Your task to perform on an android device: Open Chrome and go to settings Image 0: 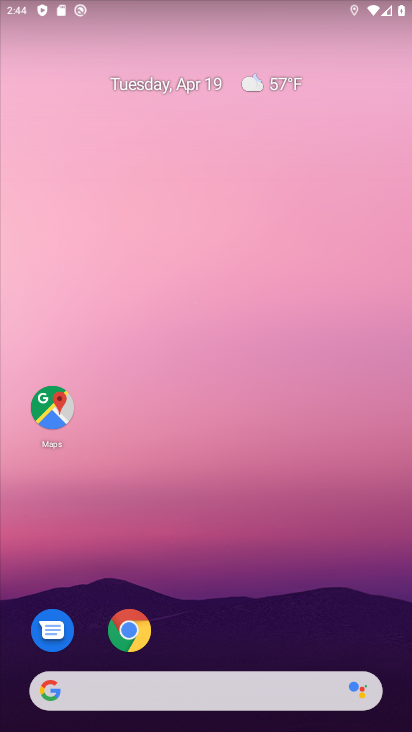
Step 0: click (140, 637)
Your task to perform on an android device: Open Chrome and go to settings Image 1: 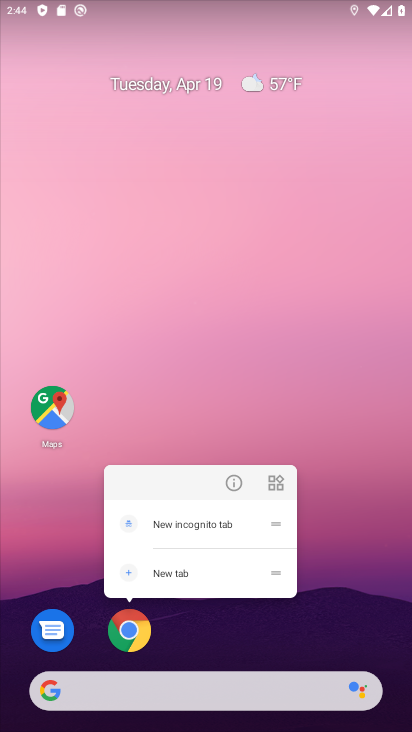
Step 1: click (140, 637)
Your task to perform on an android device: Open Chrome and go to settings Image 2: 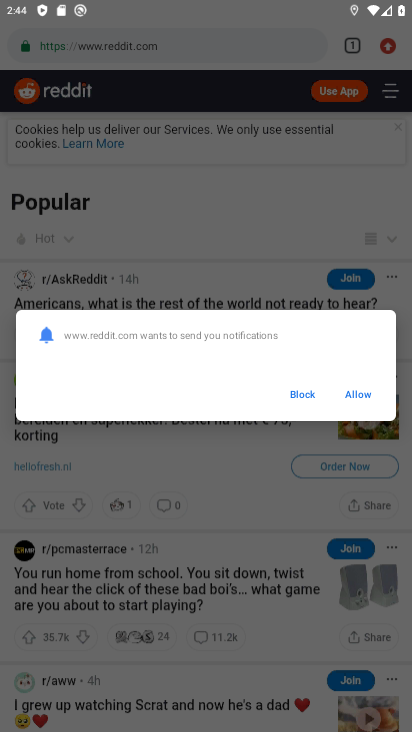
Step 2: click (362, 386)
Your task to perform on an android device: Open Chrome and go to settings Image 3: 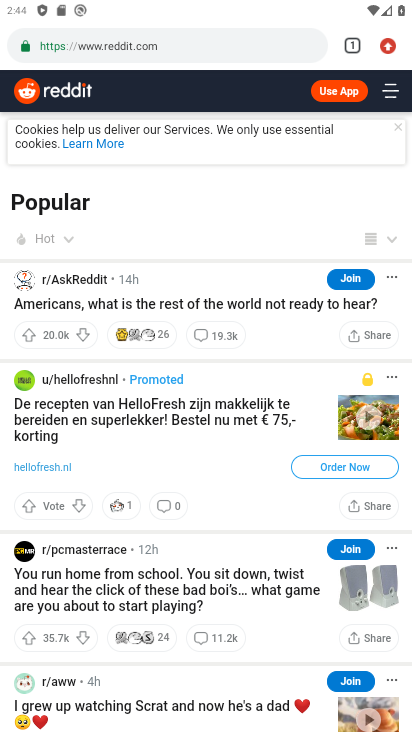
Step 3: task complete